Your task to perform on an android device: Is it going to rain today? Image 0: 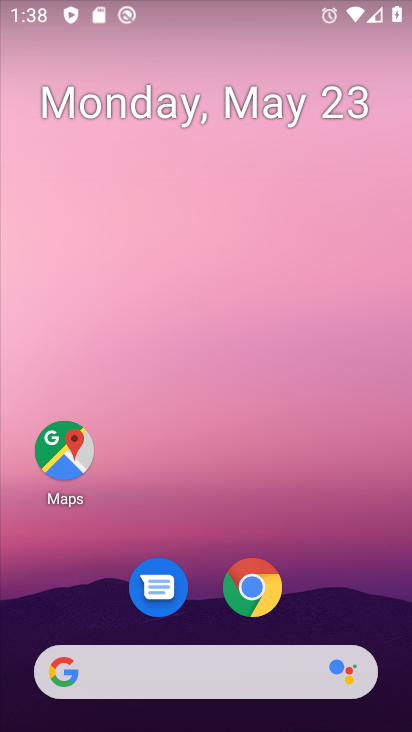
Step 0: drag from (355, 603) to (321, 380)
Your task to perform on an android device: Is it going to rain today? Image 1: 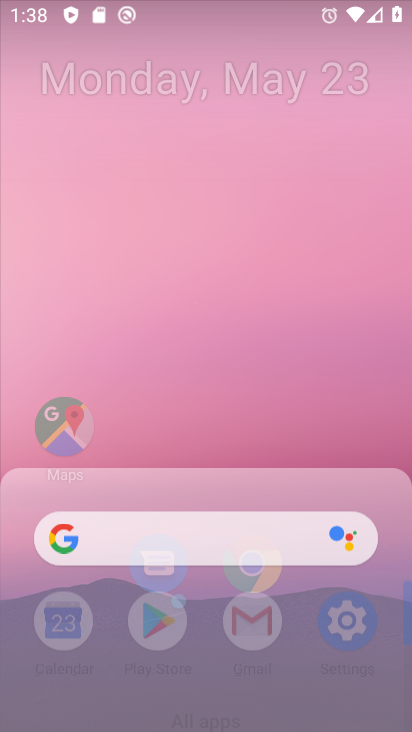
Step 1: click (321, 379)
Your task to perform on an android device: Is it going to rain today? Image 2: 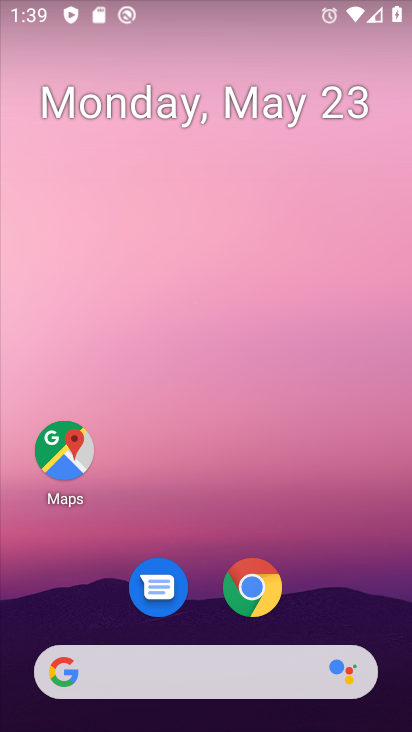
Step 2: click (221, 677)
Your task to perform on an android device: Is it going to rain today? Image 3: 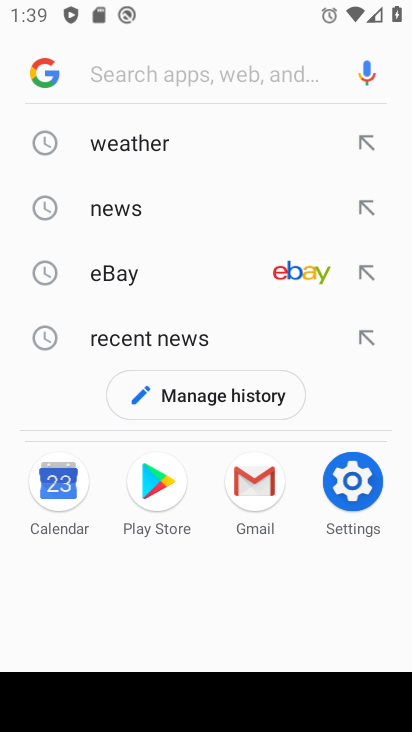
Step 3: click (193, 148)
Your task to perform on an android device: Is it going to rain today? Image 4: 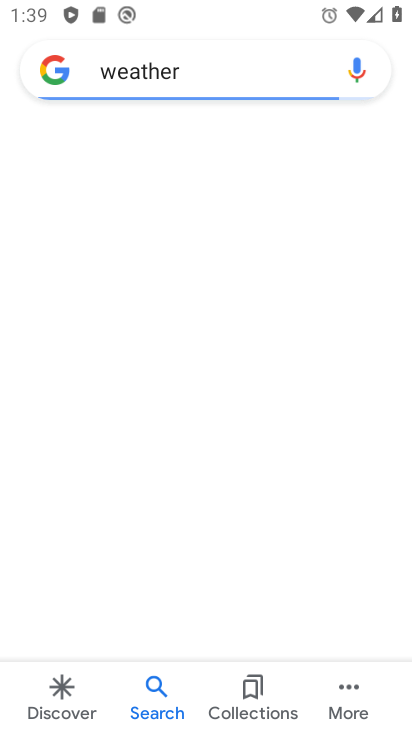
Step 4: task complete